Your task to perform on an android device: turn on notifications settings in the gmail app Image 0: 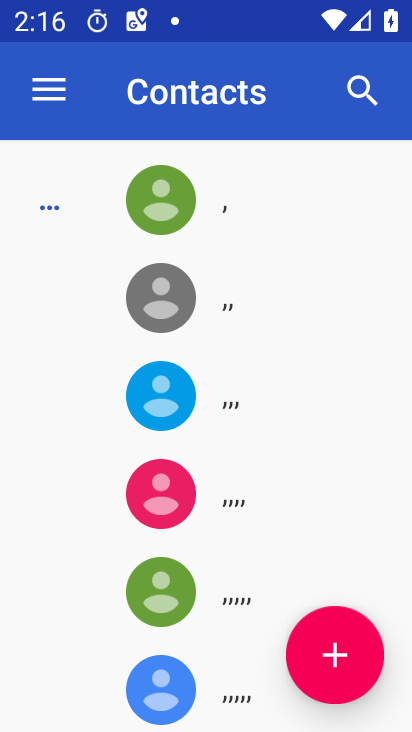
Step 0: press home button
Your task to perform on an android device: turn on notifications settings in the gmail app Image 1: 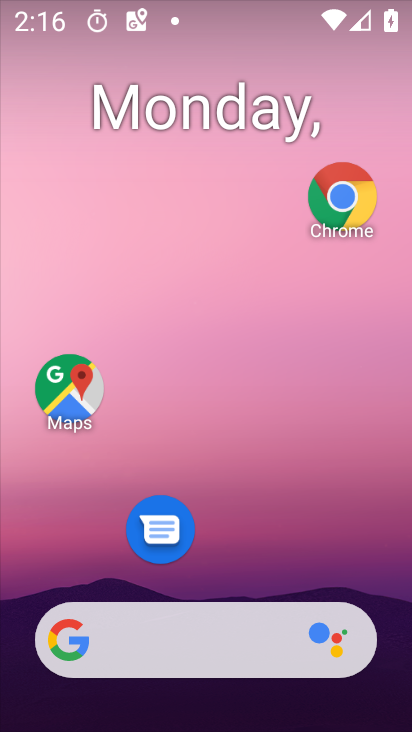
Step 1: drag from (219, 582) to (158, 47)
Your task to perform on an android device: turn on notifications settings in the gmail app Image 2: 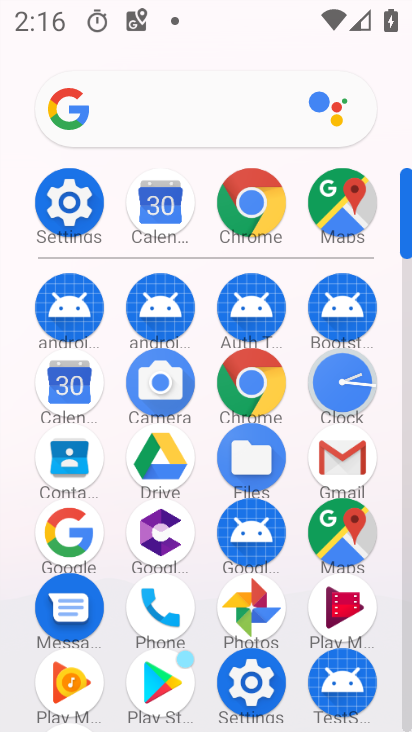
Step 2: click (335, 459)
Your task to perform on an android device: turn on notifications settings in the gmail app Image 3: 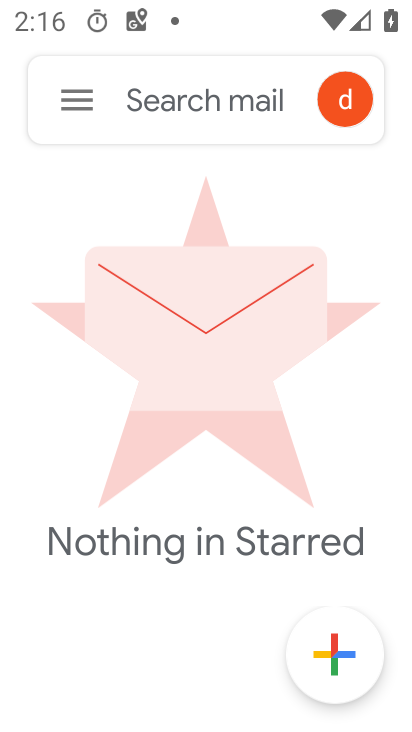
Step 3: click (86, 104)
Your task to perform on an android device: turn on notifications settings in the gmail app Image 4: 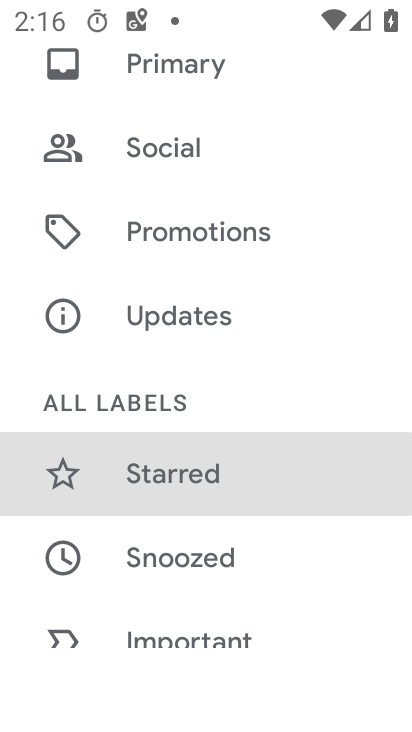
Step 4: drag from (217, 575) to (136, 9)
Your task to perform on an android device: turn on notifications settings in the gmail app Image 5: 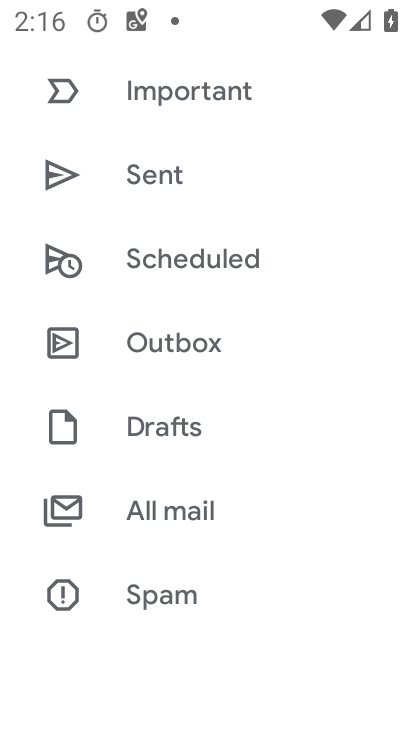
Step 5: drag from (176, 612) to (181, 24)
Your task to perform on an android device: turn on notifications settings in the gmail app Image 6: 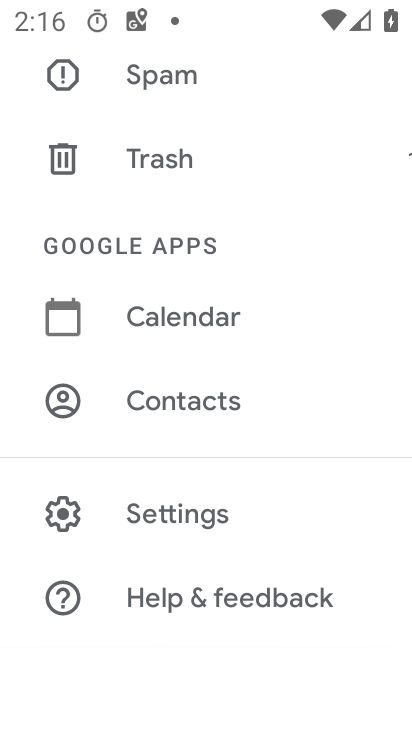
Step 6: click (179, 506)
Your task to perform on an android device: turn on notifications settings in the gmail app Image 7: 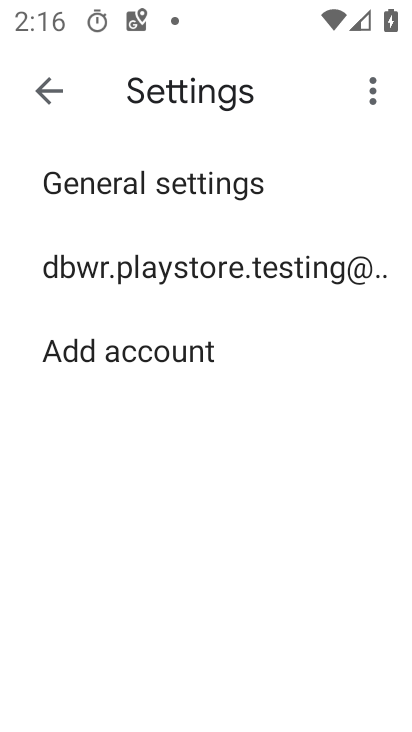
Step 7: click (147, 185)
Your task to perform on an android device: turn on notifications settings in the gmail app Image 8: 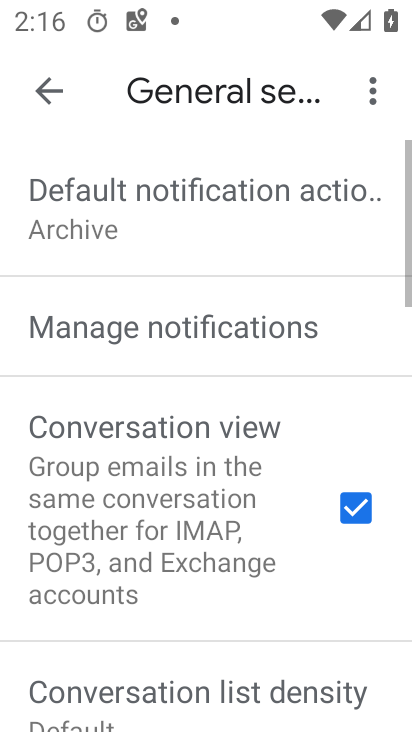
Step 8: click (192, 322)
Your task to perform on an android device: turn on notifications settings in the gmail app Image 9: 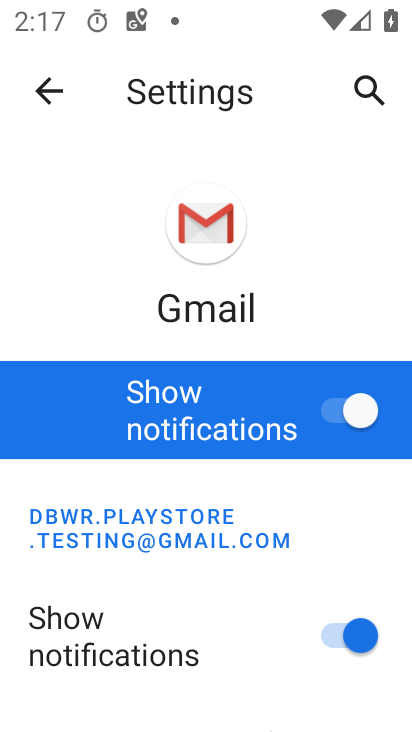
Step 9: task complete